Your task to perform on an android device: install app "Adobe Acrobat Reader: Edit PDF" Image 0: 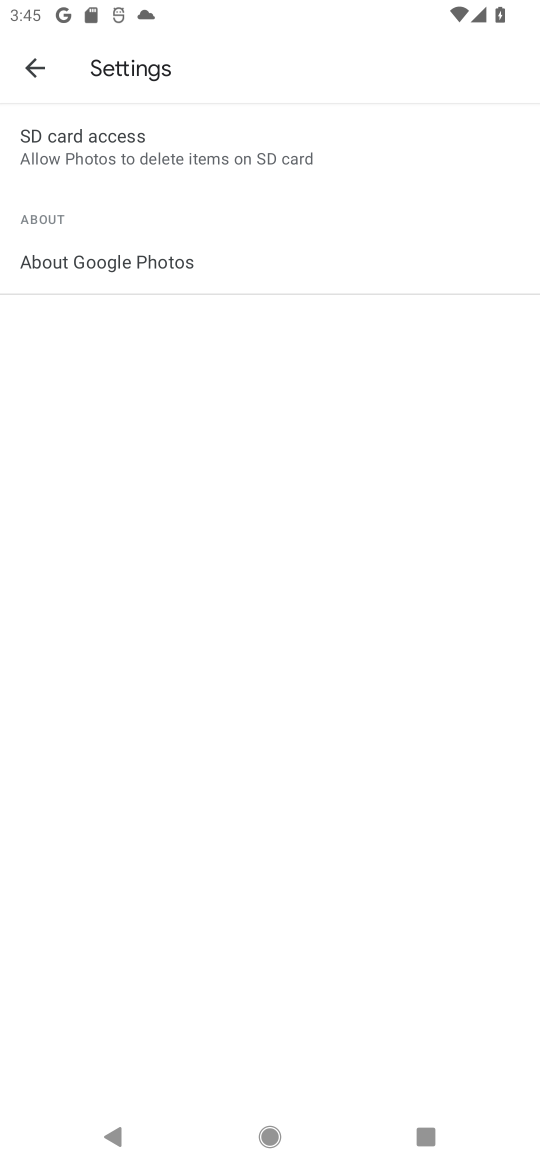
Step 0: press home button
Your task to perform on an android device: install app "Adobe Acrobat Reader: Edit PDF" Image 1: 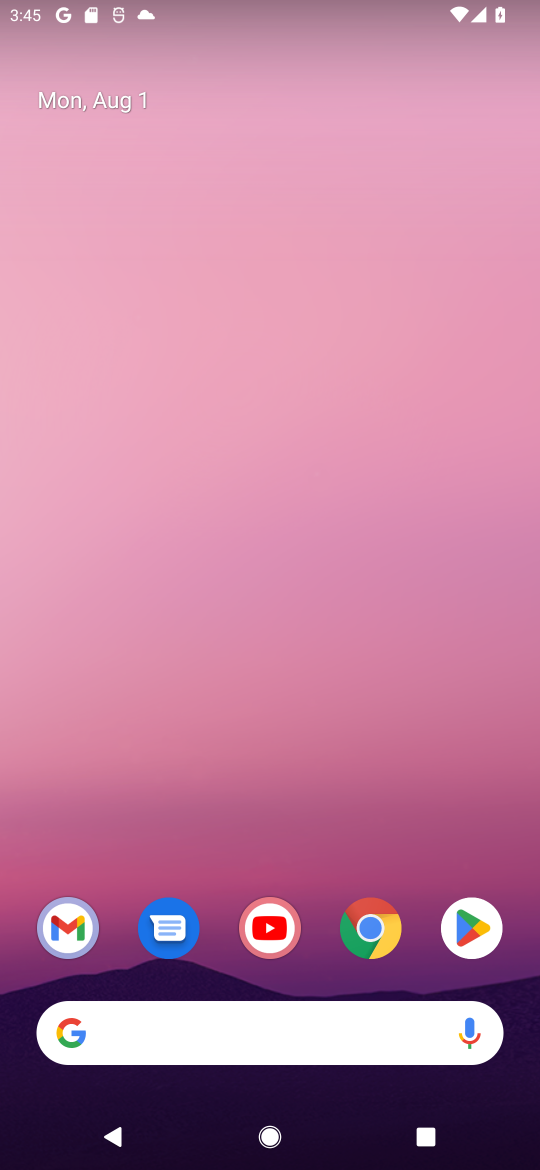
Step 1: click (482, 926)
Your task to perform on an android device: install app "Adobe Acrobat Reader: Edit PDF" Image 2: 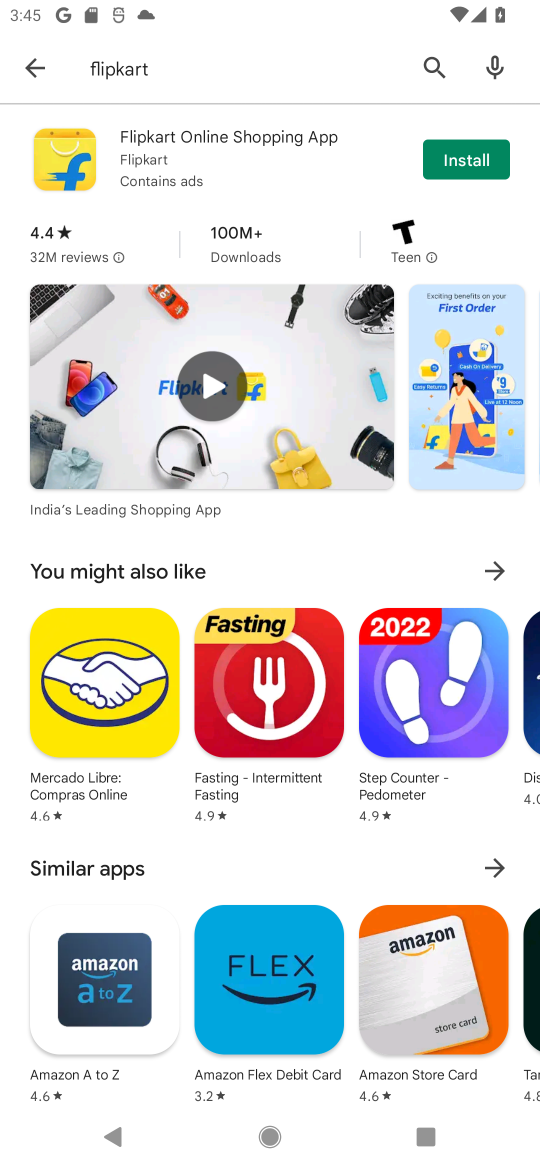
Step 2: click (443, 68)
Your task to perform on an android device: install app "Adobe Acrobat Reader: Edit PDF" Image 3: 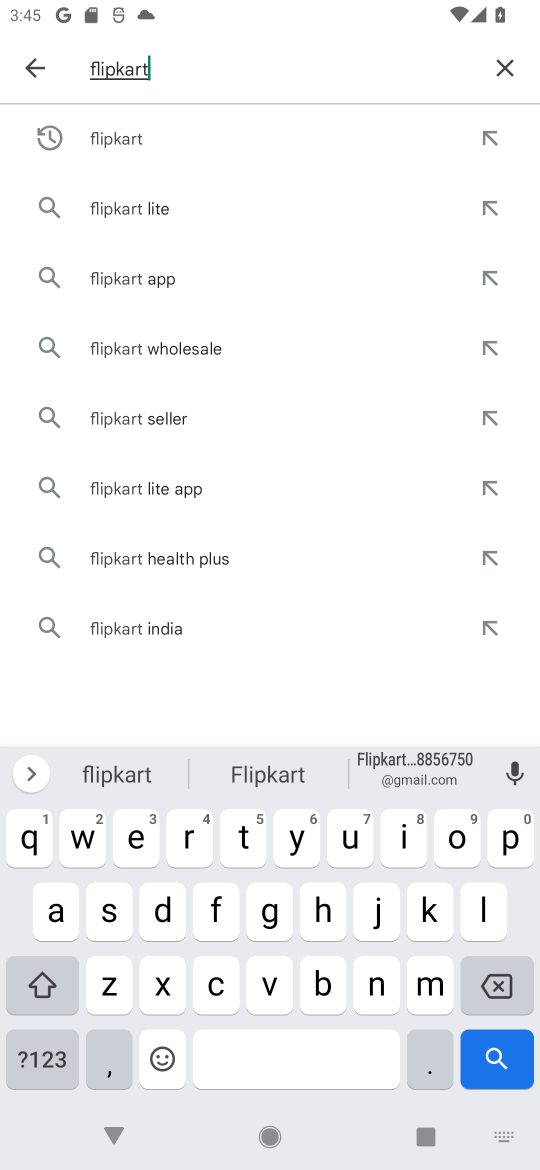
Step 3: click (503, 69)
Your task to perform on an android device: install app "Adobe Acrobat Reader: Edit PDF" Image 4: 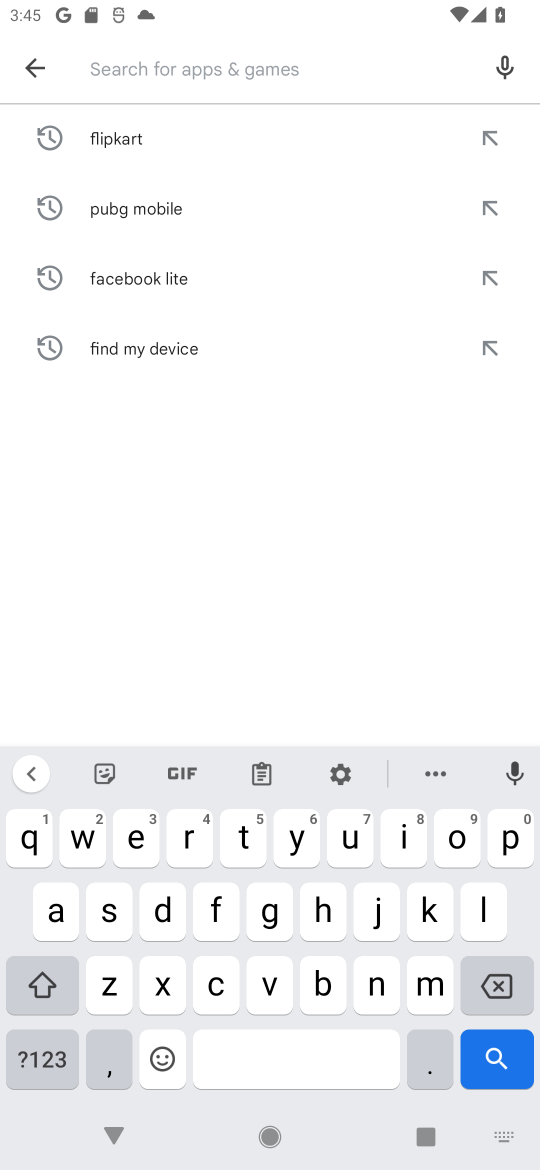
Step 4: click (45, 911)
Your task to perform on an android device: install app "Adobe Acrobat Reader: Edit PDF" Image 5: 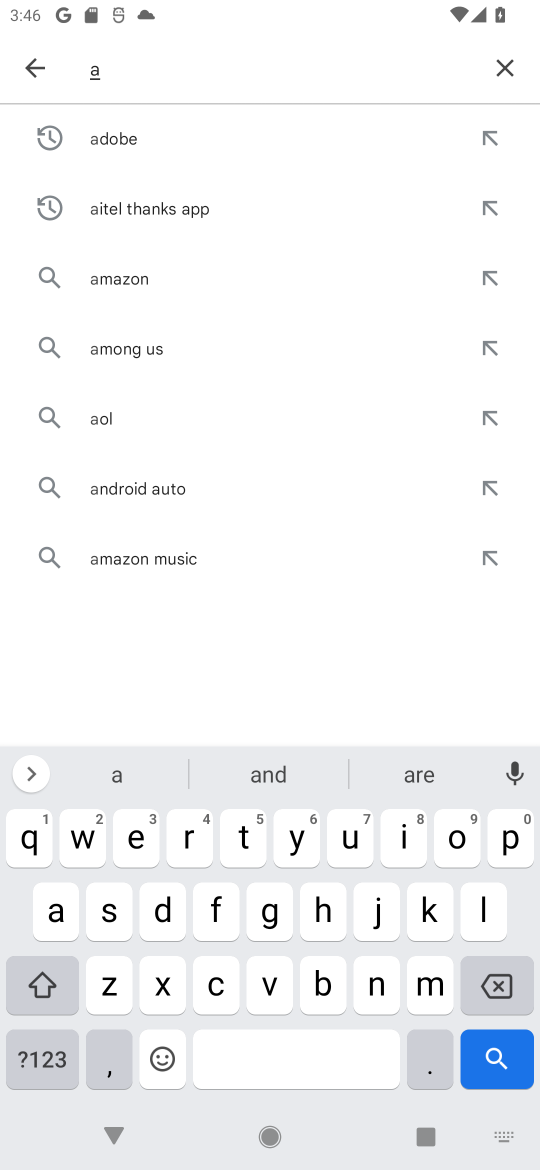
Step 5: click (168, 913)
Your task to perform on an android device: install app "Adobe Acrobat Reader: Edit PDF" Image 6: 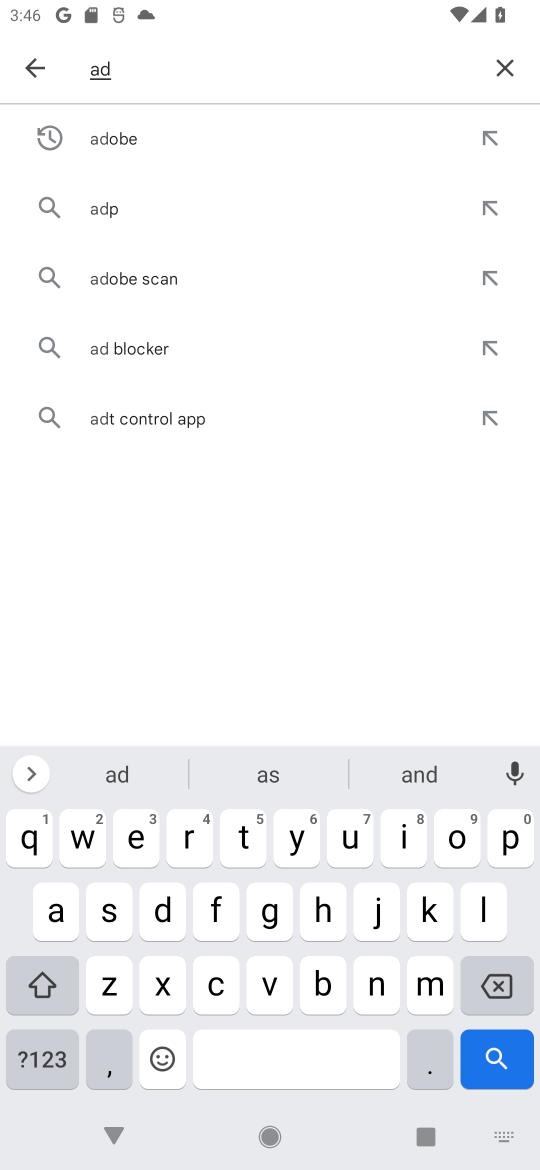
Step 6: click (139, 137)
Your task to perform on an android device: install app "Adobe Acrobat Reader: Edit PDF" Image 7: 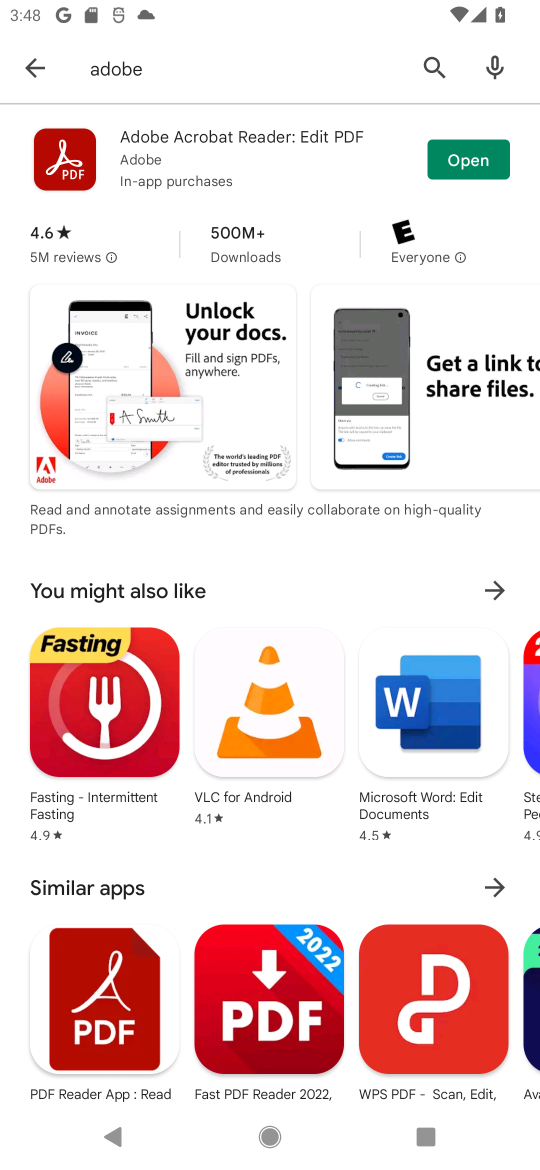
Step 7: task complete